Your task to perform on an android device: Check the price on the Dyson V11 Motorhead on Best Buy Image 0: 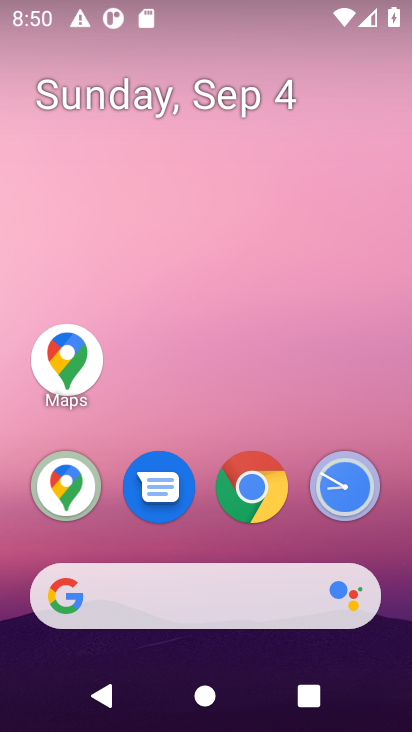
Step 0: click (359, 503)
Your task to perform on an android device: Check the price on the Dyson V11 Motorhead on Best Buy Image 1: 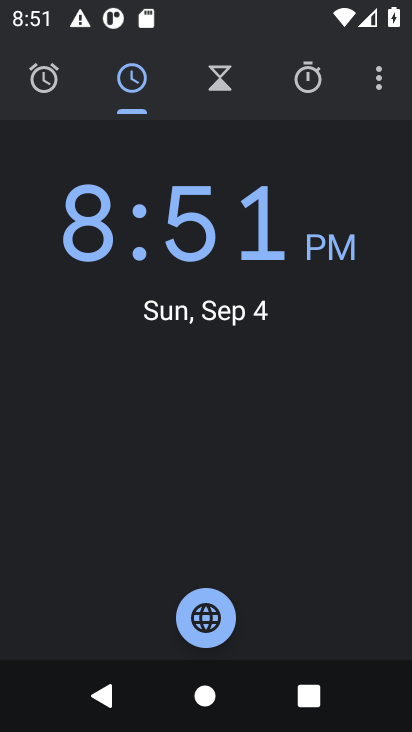
Step 1: task complete